Your task to perform on an android device: Open Youtube and go to "Your channel" Image 0: 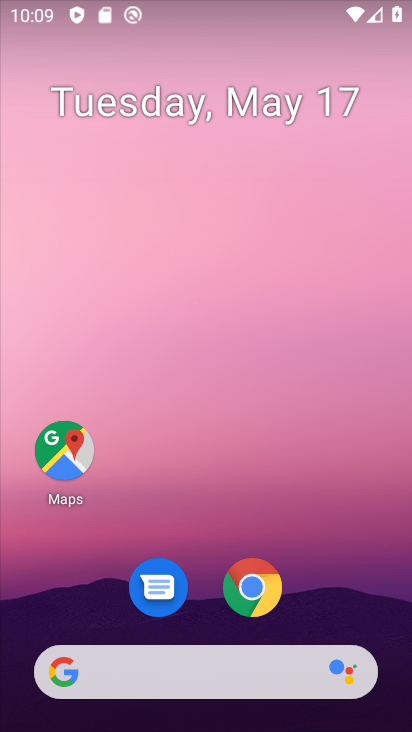
Step 0: drag from (337, 578) to (265, 90)
Your task to perform on an android device: Open Youtube and go to "Your channel" Image 1: 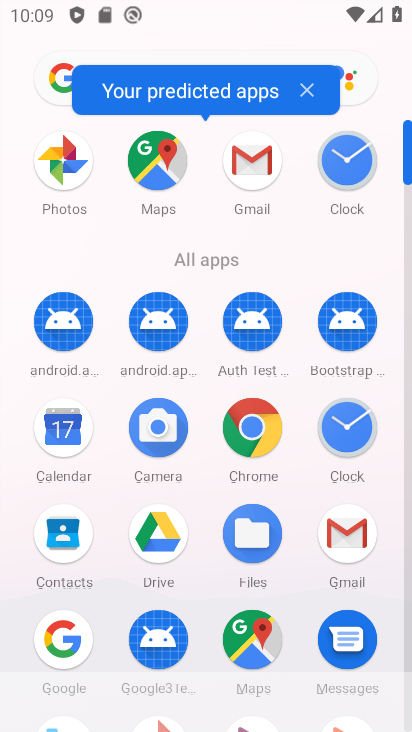
Step 1: drag from (368, 582) to (368, 161)
Your task to perform on an android device: Open Youtube and go to "Your channel" Image 2: 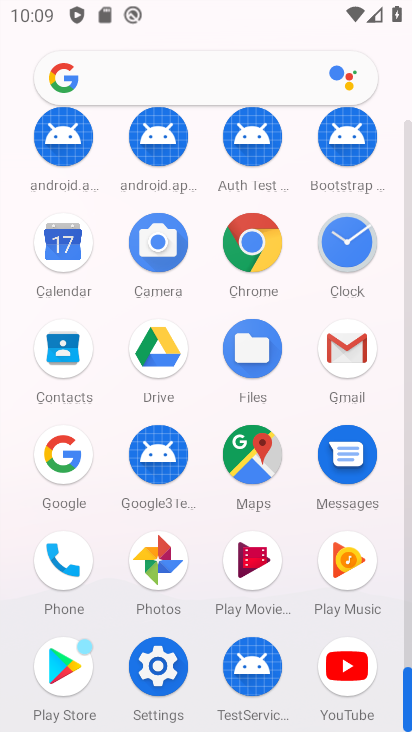
Step 2: click (348, 675)
Your task to perform on an android device: Open Youtube and go to "Your channel" Image 3: 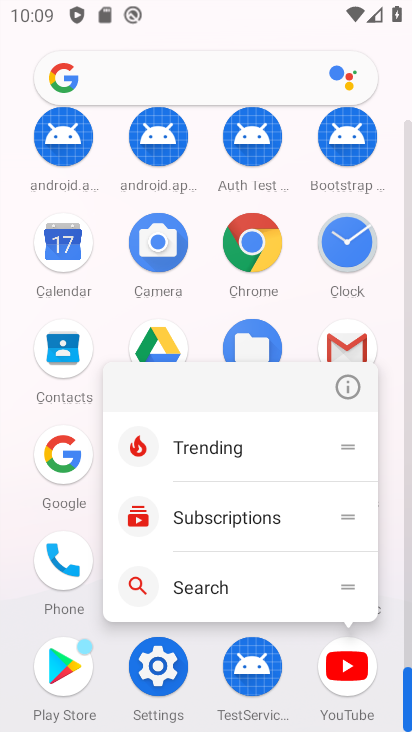
Step 3: click (348, 675)
Your task to perform on an android device: Open Youtube and go to "Your channel" Image 4: 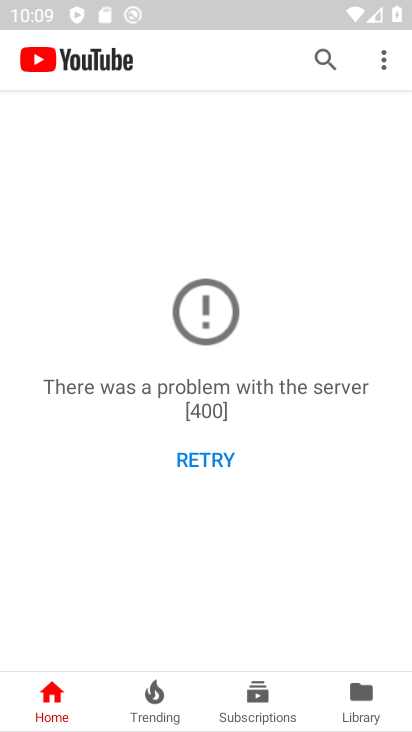
Step 4: task complete